Your task to perform on an android device: uninstall "Skype" Image 0: 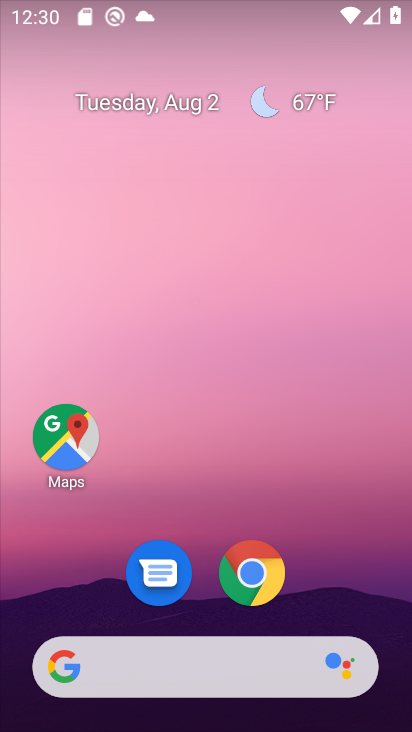
Step 0: drag from (240, 649) to (241, 3)
Your task to perform on an android device: uninstall "Skype" Image 1: 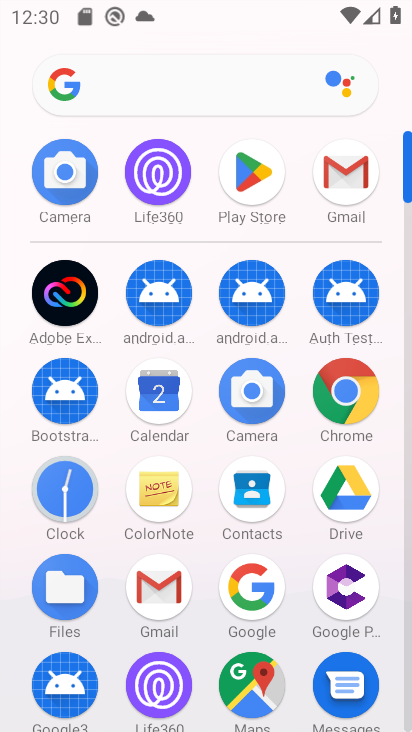
Step 1: click (239, 163)
Your task to perform on an android device: uninstall "Skype" Image 2: 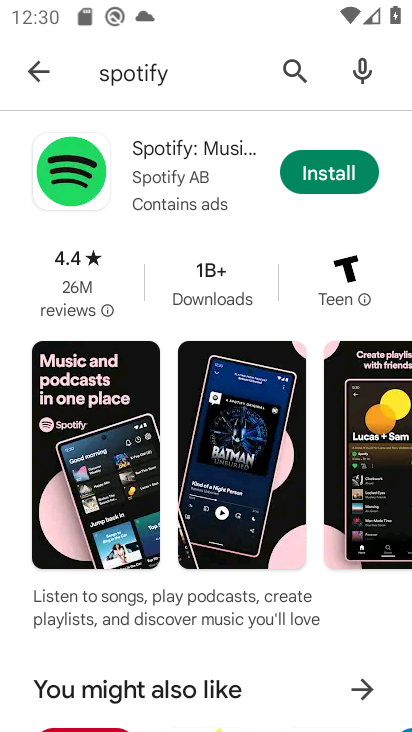
Step 2: click (239, 163)
Your task to perform on an android device: uninstall "Skype" Image 3: 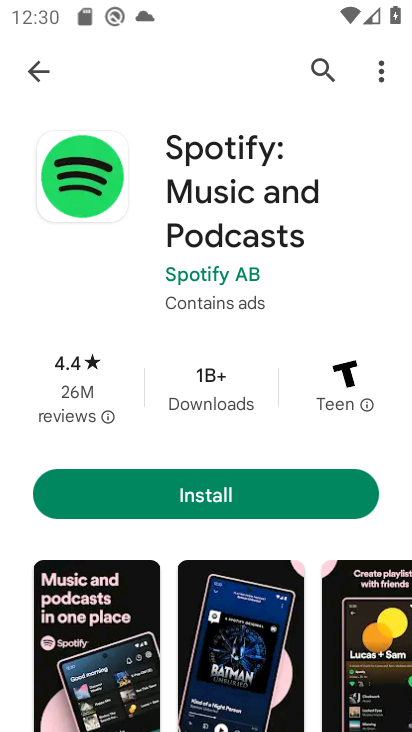
Step 3: click (302, 72)
Your task to perform on an android device: uninstall "Skype" Image 4: 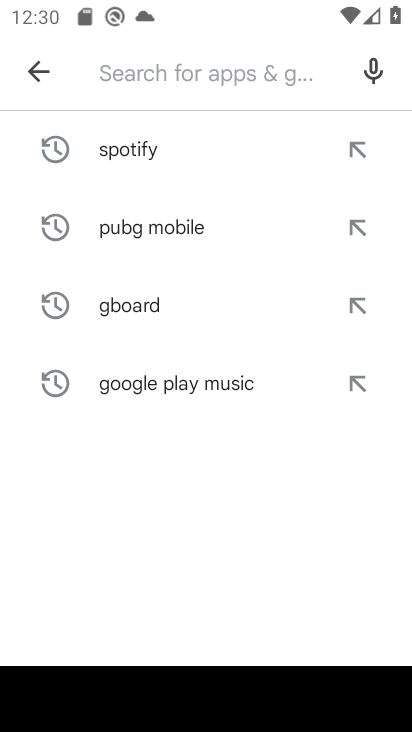
Step 4: type "skype"
Your task to perform on an android device: uninstall "Skype" Image 5: 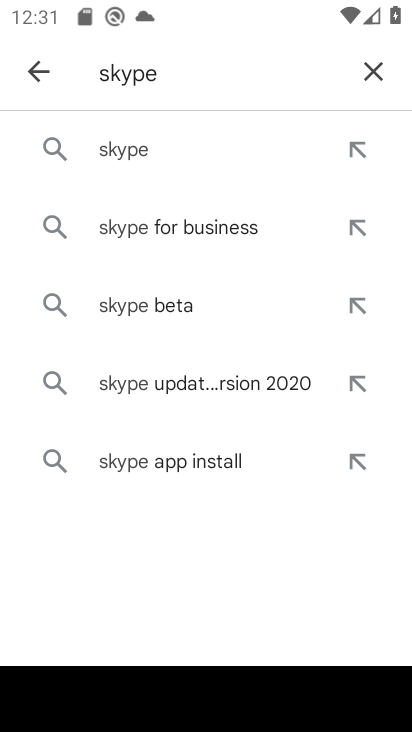
Step 5: click (152, 144)
Your task to perform on an android device: uninstall "Skype" Image 6: 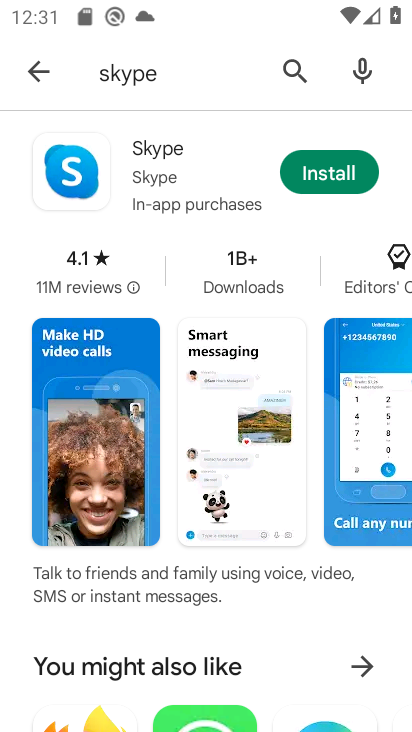
Step 6: task complete